Your task to perform on an android device: Show me the alarms in the clock app Image 0: 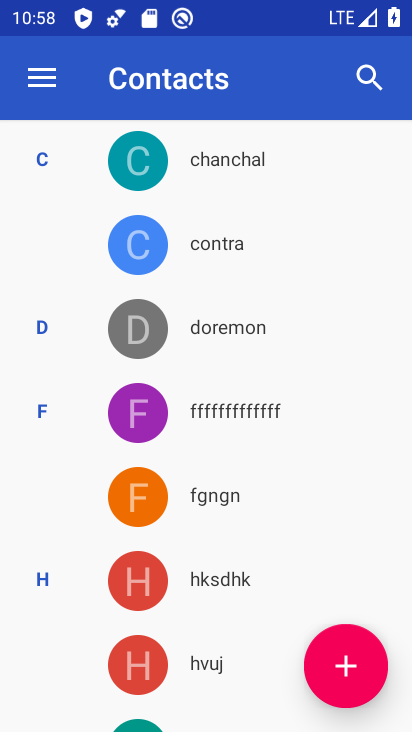
Step 0: press home button
Your task to perform on an android device: Show me the alarms in the clock app Image 1: 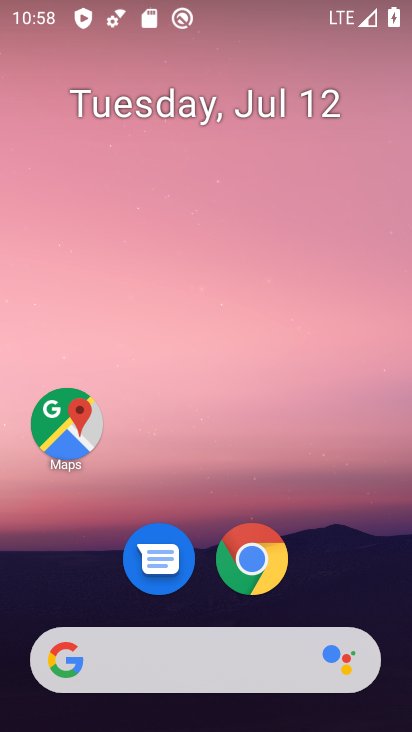
Step 1: drag from (180, 588) to (288, 52)
Your task to perform on an android device: Show me the alarms in the clock app Image 2: 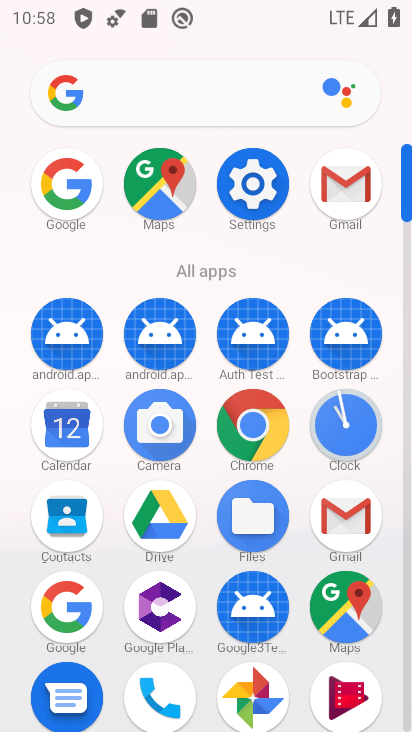
Step 2: click (350, 445)
Your task to perform on an android device: Show me the alarms in the clock app Image 3: 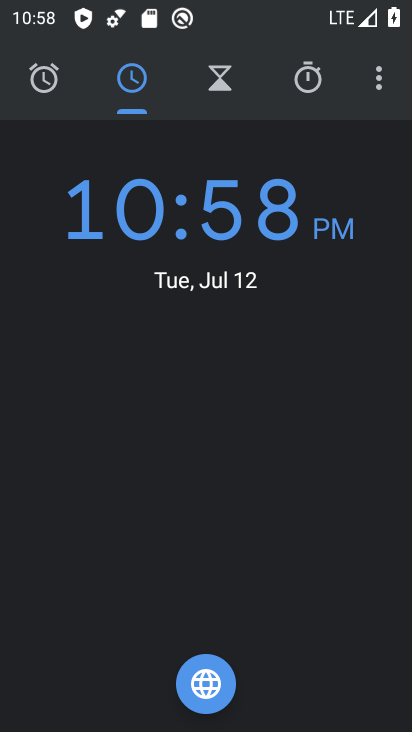
Step 3: click (35, 96)
Your task to perform on an android device: Show me the alarms in the clock app Image 4: 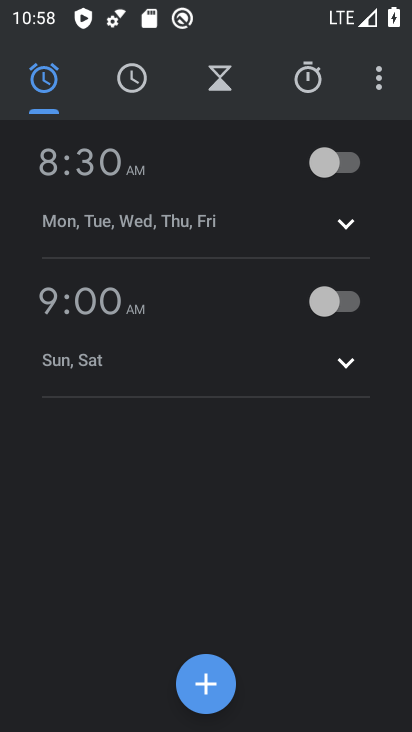
Step 4: task complete